Your task to perform on an android device: manage bookmarks in the chrome app Image 0: 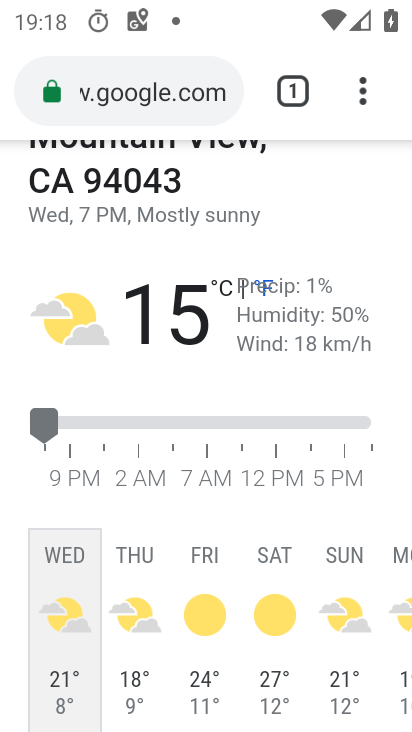
Step 0: press home button
Your task to perform on an android device: manage bookmarks in the chrome app Image 1: 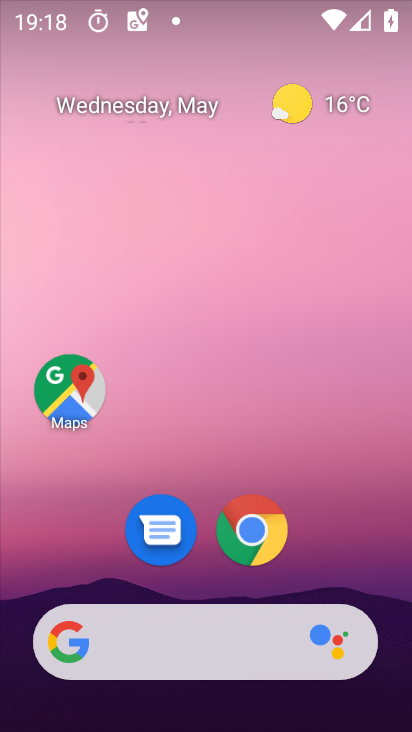
Step 1: click (245, 534)
Your task to perform on an android device: manage bookmarks in the chrome app Image 2: 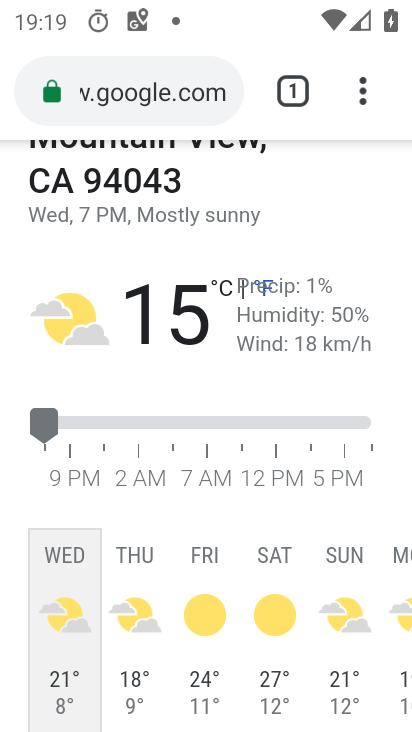
Step 2: click (360, 80)
Your task to perform on an android device: manage bookmarks in the chrome app Image 3: 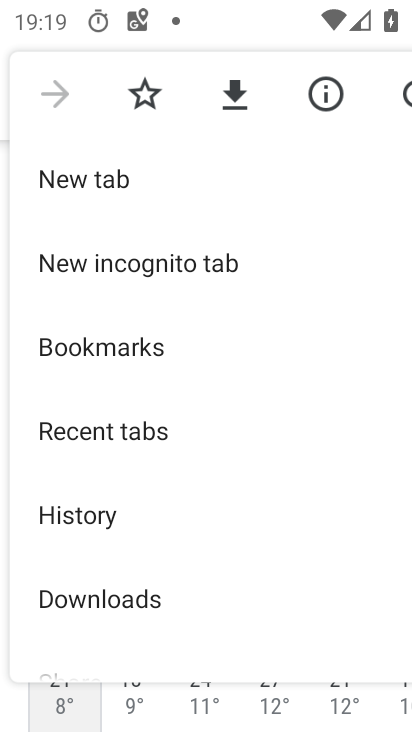
Step 3: click (144, 322)
Your task to perform on an android device: manage bookmarks in the chrome app Image 4: 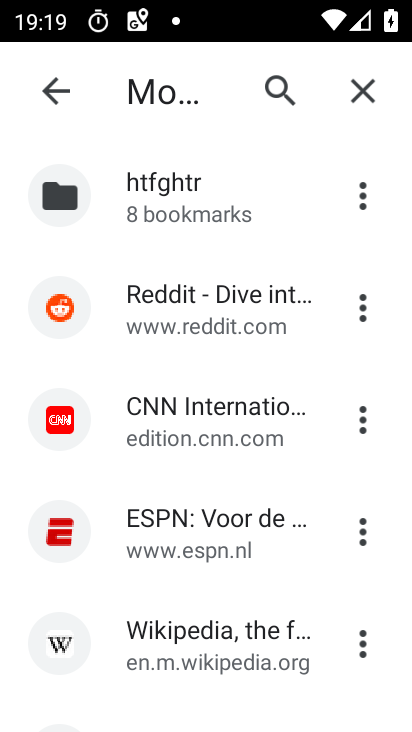
Step 4: click (365, 193)
Your task to perform on an android device: manage bookmarks in the chrome app Image 5: 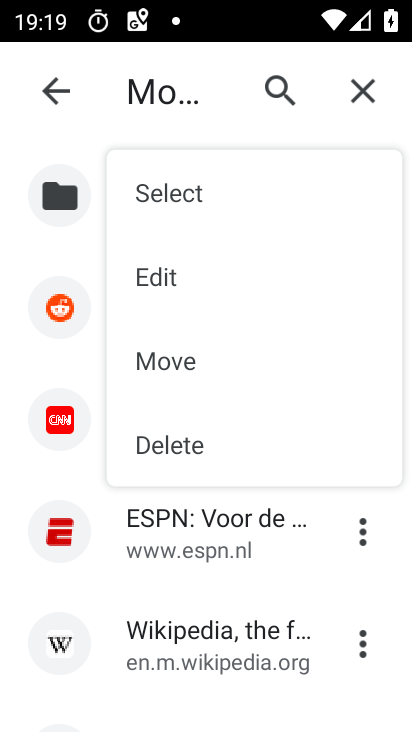
Step 5: click (29, 249)
Your task to perform on an android device: manage bookmarks in the chrome app Image 6: 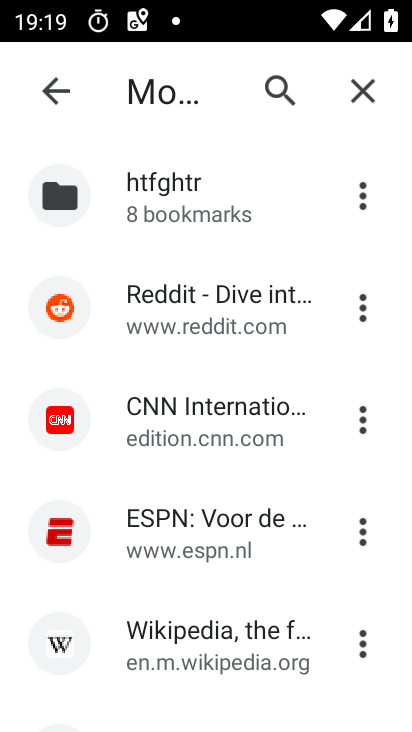
Step 6: task complete